Your task to perform on an android device: Open Reddit.com Image 0: 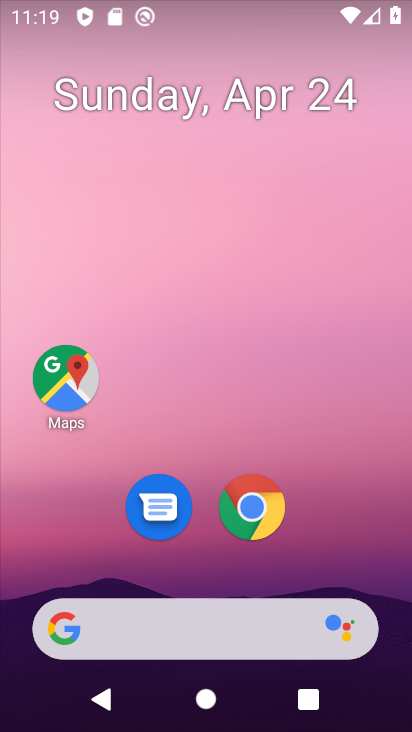
Step 0: drag from (299, 560) to (307, 113)
Your task to perform on an android device: Open Reddit.com Image 1: 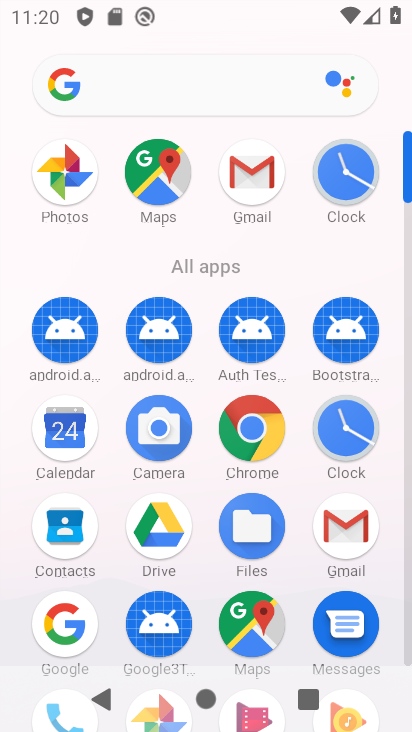
Step 1: click (261, 434)
Your task to perform on an android device: Open Reddit.com Image 2: 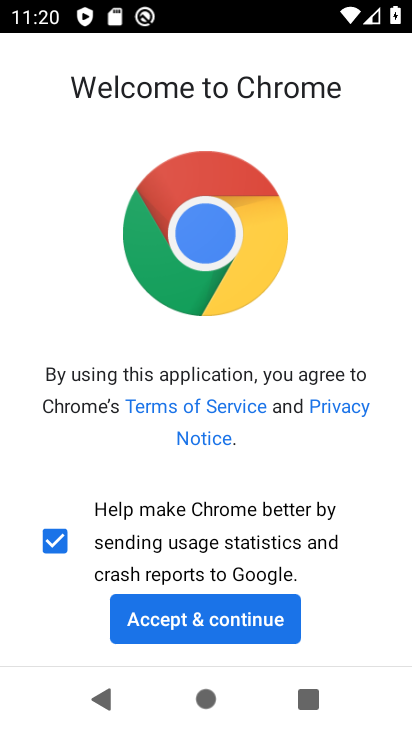
Step 2: click (258, 626)
Your task to perform on an android device: Open Reddit.com Image 3: 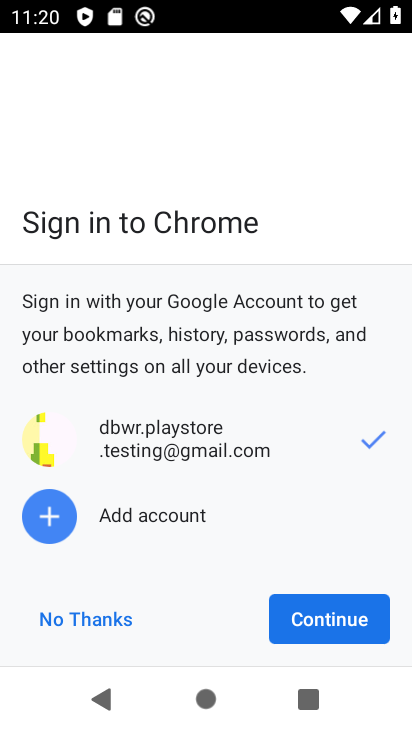
Step 3: click (326, 627)
Your task to perform on an android device: Open Reddit.com Image 4: 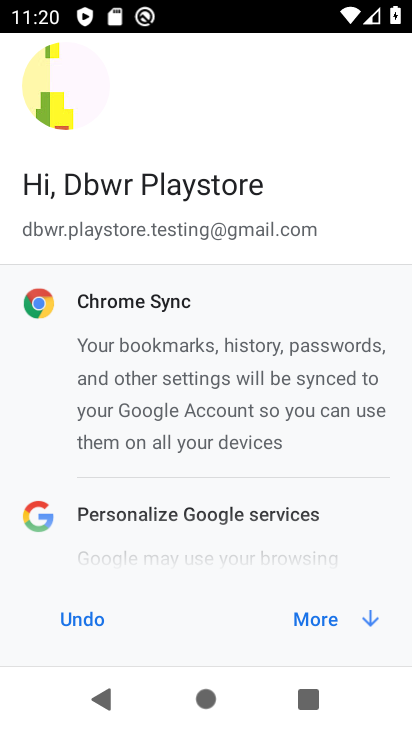
Step 4: click (326, 619)
Your task to perform on an android device: Open Reddit.com Image 5: 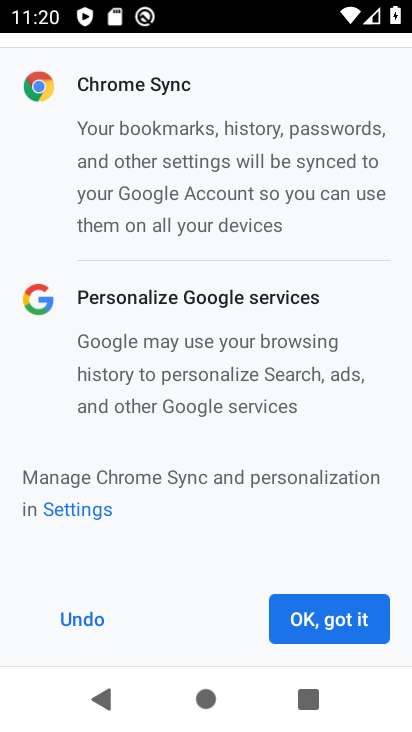
Step 5: click (326, 615)
Your task to perform on an android device: Open Reddit.com Image 6: 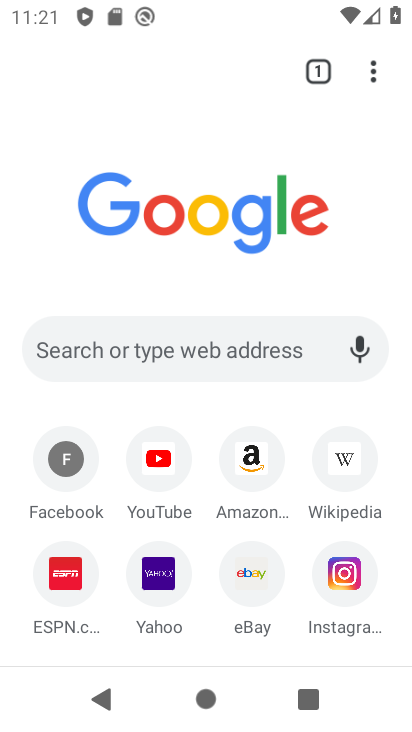
Step 6: click (251, 353)
Your task to perform on an android device: Open Reddit.com Image 7: 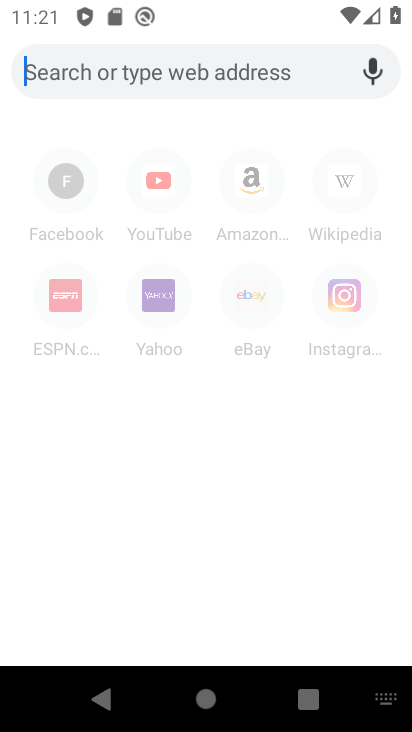
Step 7: type "Reddit.com"
Your task to perform on an android device: Open Reddit.com Image 8: 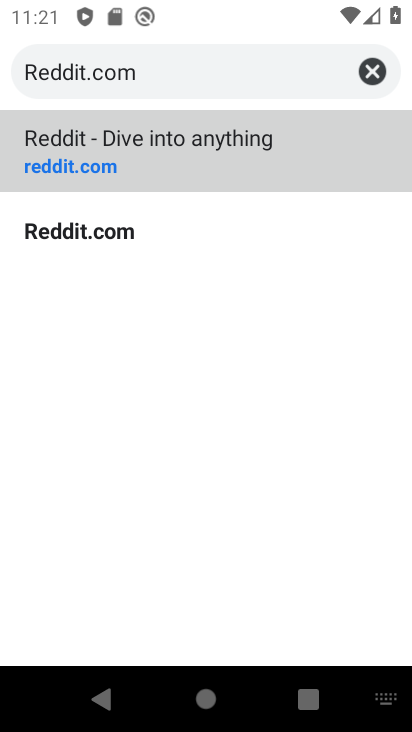
Step 8: click (67, 162)
Your task to perform on an android device: Open Reddit.com Image 9: 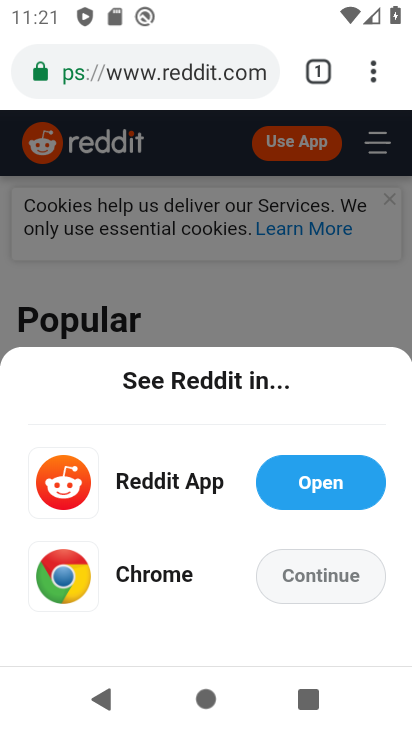
Step 9: task complete